Your task to perform on an android device: turn on bluetooth scan Image 0: 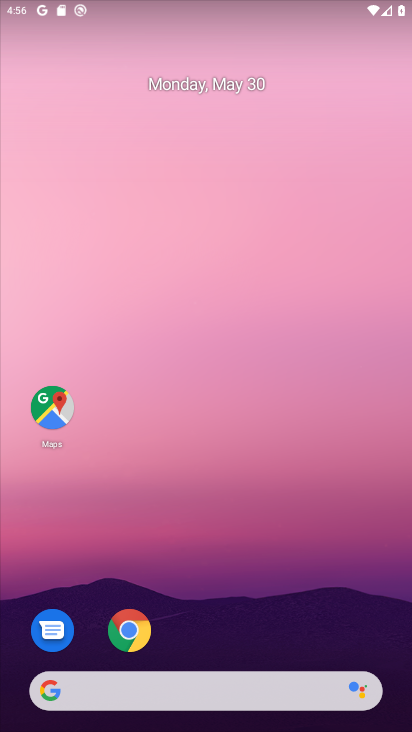
Step 0: press home button
Your task to perform on an android device: turn on bluetooth scan Image 1: 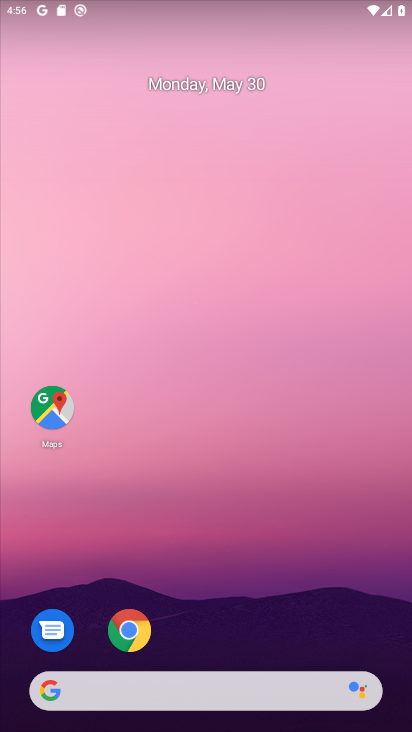
Step 1: drag from (259, 641) to (298, 192)
Your task to perform on an android device: turn on bluetooth scan Image 2: 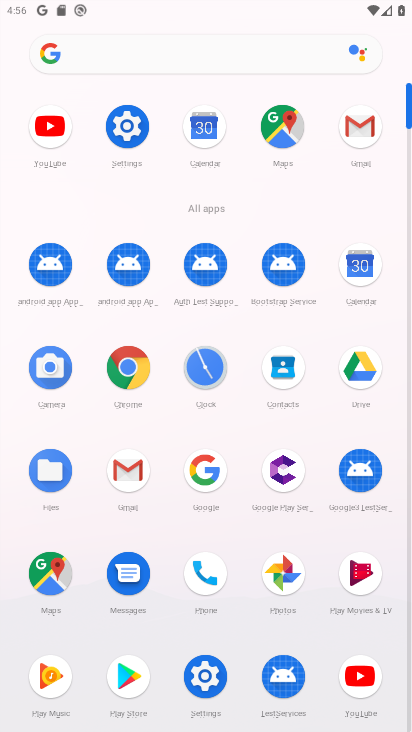
Step 2: click (125, 116)
Your task to perform on an android device: turn on bluetooth scan Image 3: 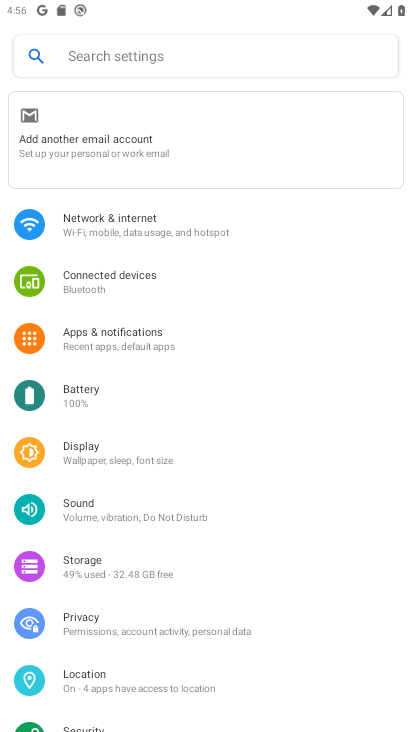
Step 3: click (102, 682)
Your task to perform on an android device: turn on bluetooth scan Image 4: 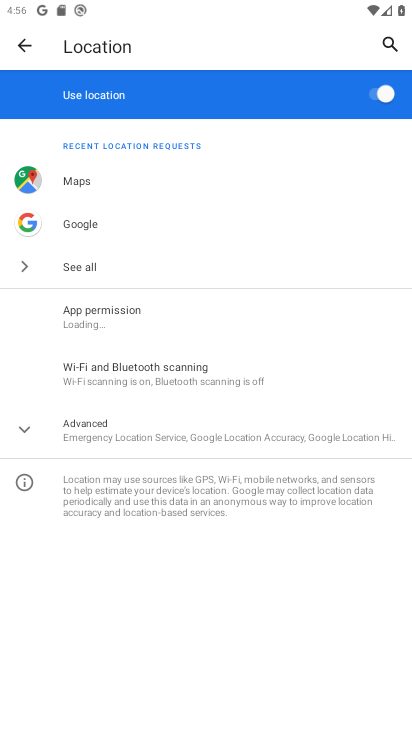
Step 4: click (99, 372)
Your task to perform on an android device: turn on bluetooth scan Image 5: 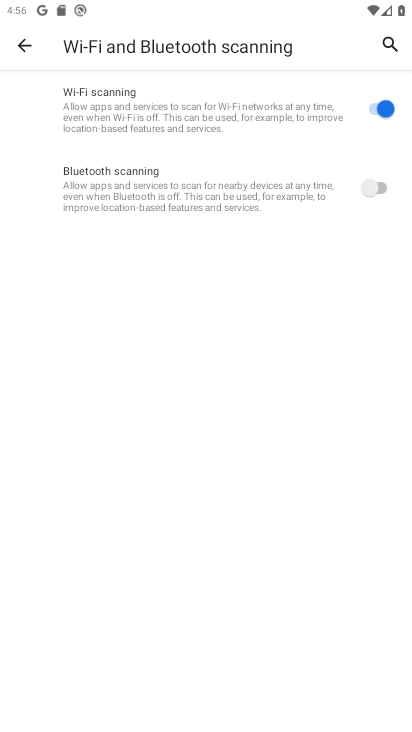
Step 5: click (378, 188)
Your task to perform on an android device: turn on bluetooth scan Image 6: 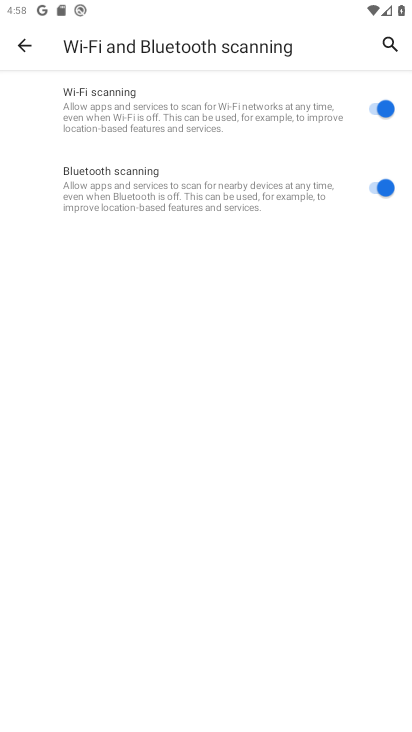
Step 6: task complete